Your task to perform on an android device: Go to Amazon Image 0: 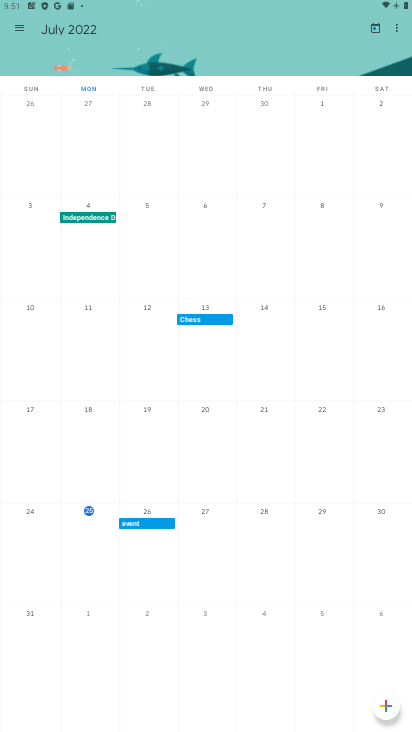
Step 0: task complete